Your task to perform on an android device: Go to battery settings Image 0: 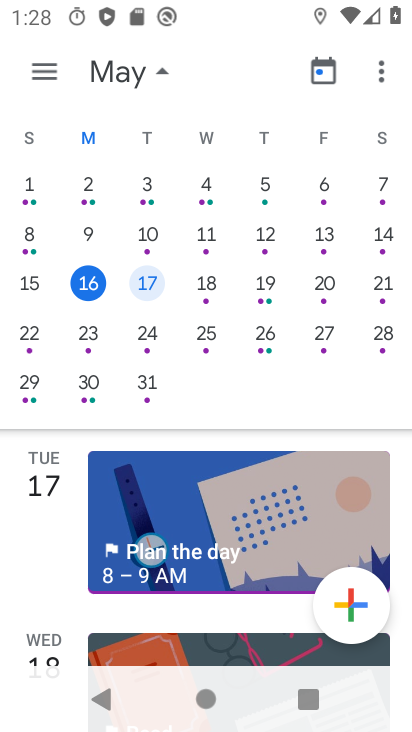
Step 0: press home button
Your task to perform on an android device: Go to battery settings Image 1: 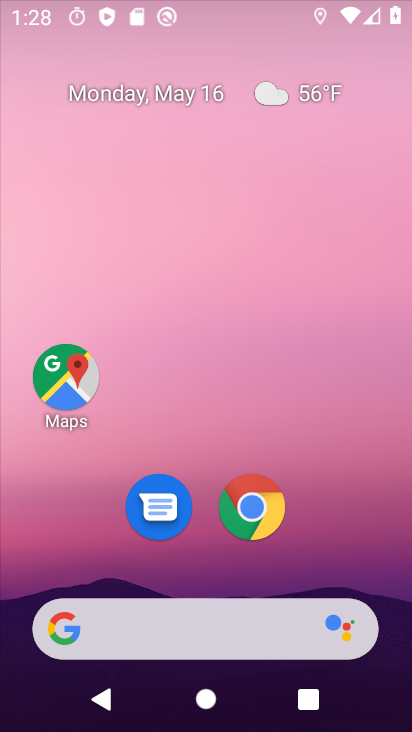
Step 1: drag from (217, 441) to (219, 32)
Your task to perform on an android device: Go to battery settings Image 2: 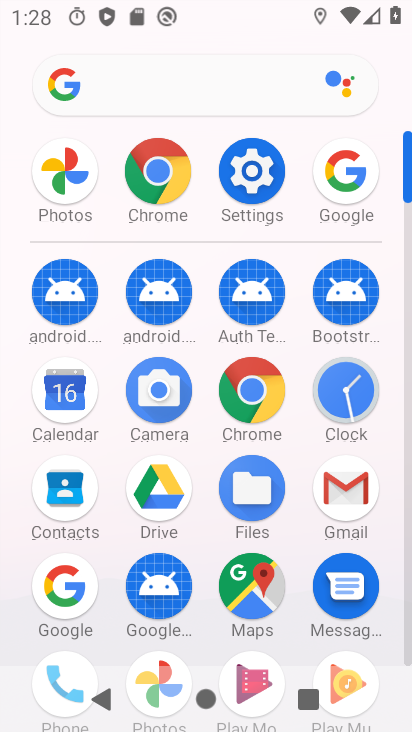
Step 2: click (255, 162)
Your task to perform on an android device: Go to battery settings Image 3: 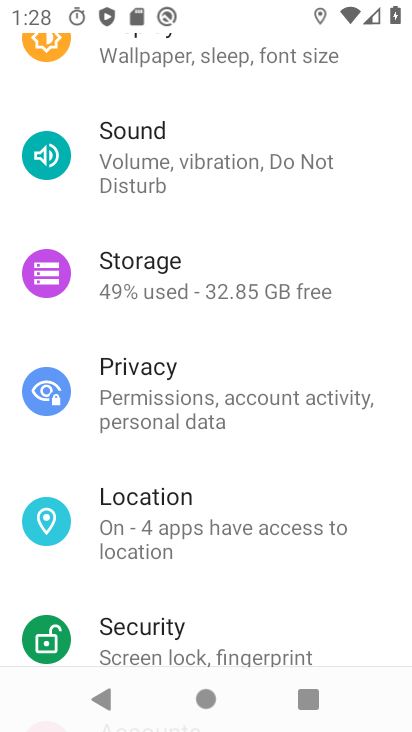
Step 3: drag from (228, 441) to (224, 686)
Your task to perform on an android device: Go to battery settings Image 4: 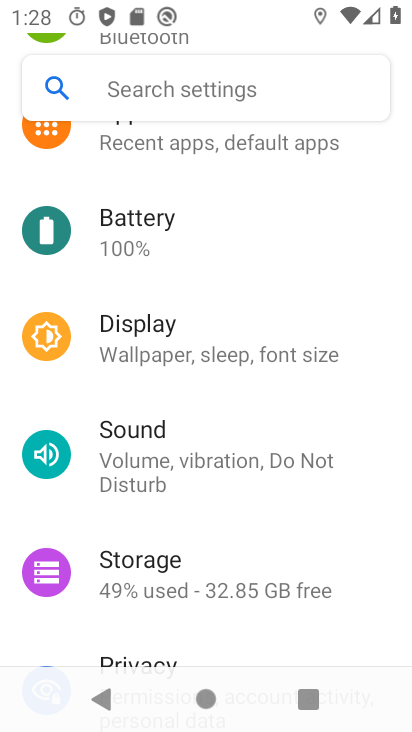
Step 4: click (130, 241)
Your task to perform on an android device: Go to battery settings Image 5: 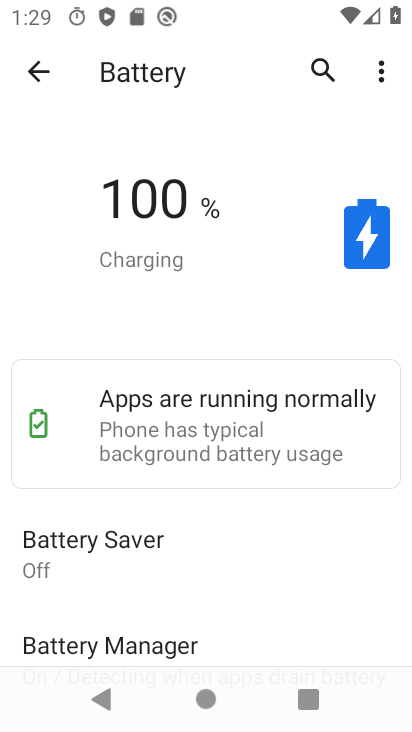
Step 5: task complete